Your task to perform on an android device: Open Yahoo.com Image 0: 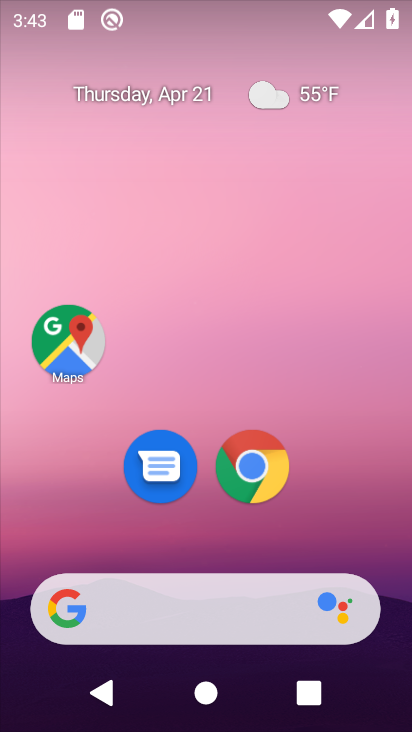
Step 0: click (252, 487)
Your task to perform on an android device: Open Yahoo.com Image 1: 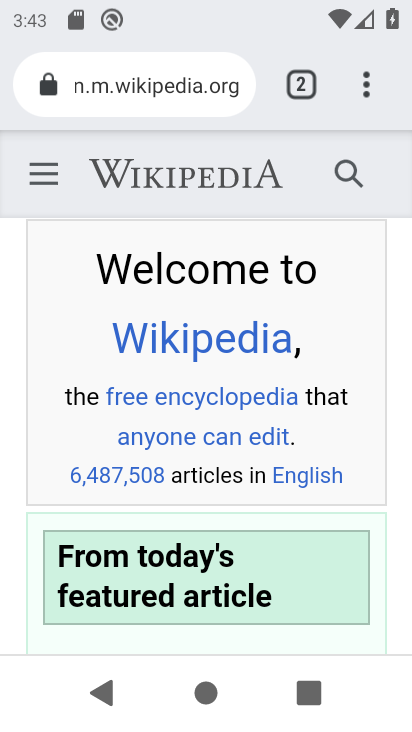
Step 1: click (298, 83)
Your task to perform on an android device: Open Yahoo.com Image 2: 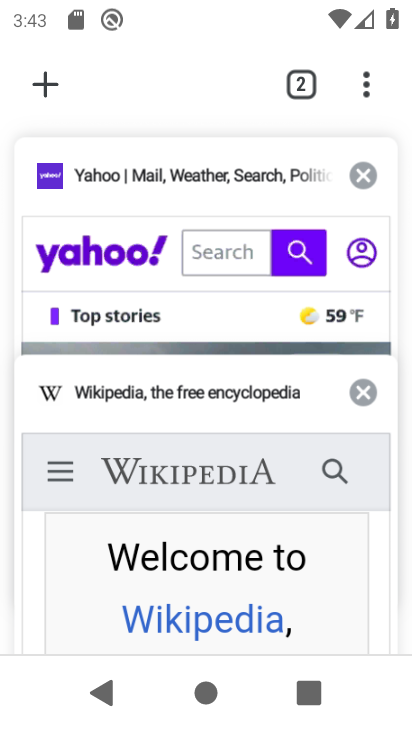
Step 2: click (188, 248)
Your task to perform on an android device: Open Yahoo.com Image 3: 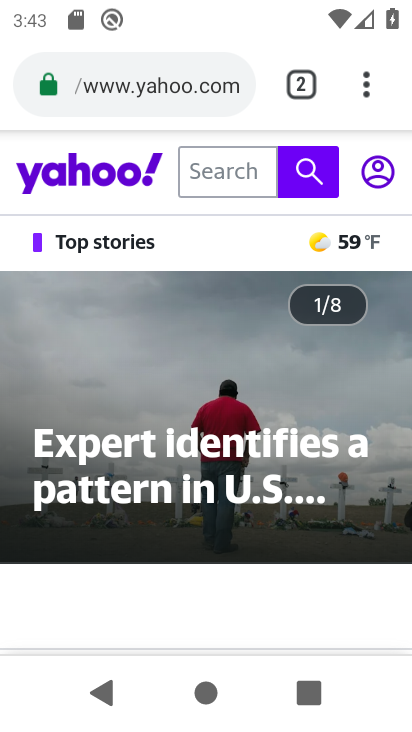
Step 3: task complete